Your task to perform on an android device: change the clock style Image 0: 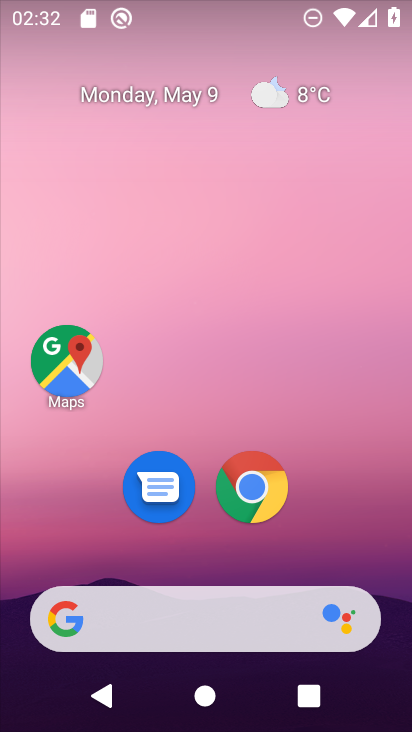
Step 0: drag from (374, 548) to (310, 2)
Your task to perform on an android device: change the clock style Image 1: 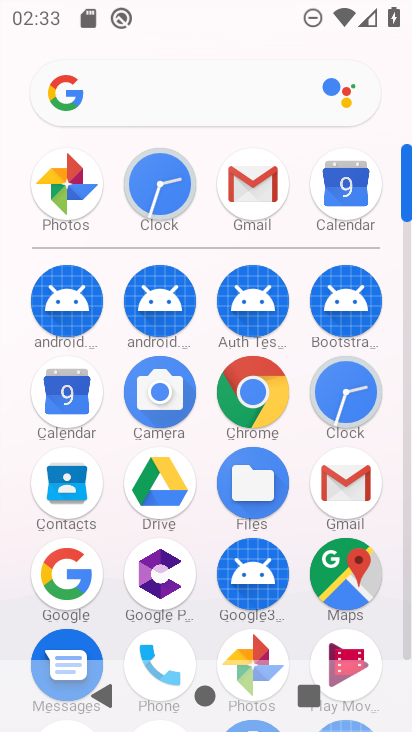
Step 1: click (345, 402)
Your task to perform on an android device: change the clock style Image 2: 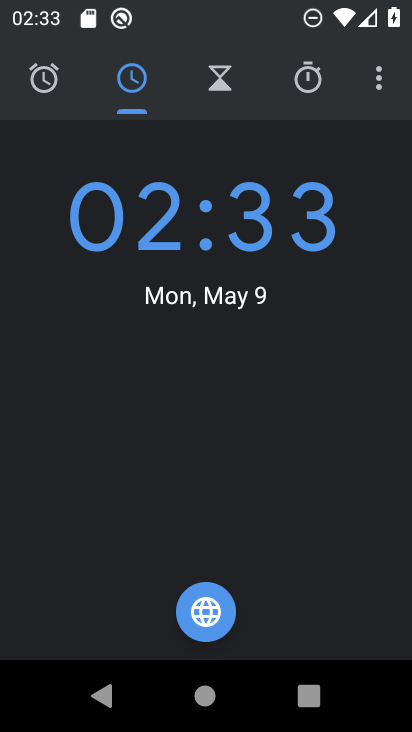
Step 2: click (371, 90)
Your task to perform on an android device: change the clock style Image 3: 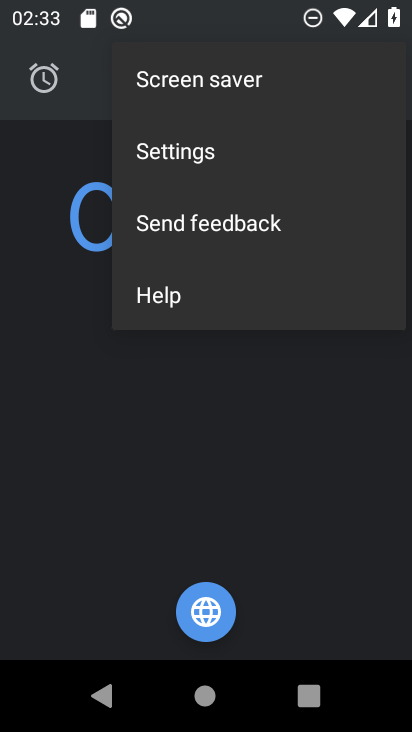
Step 3: click (184, 159)
Your task to perform on an android device: change the clock style Image 4: 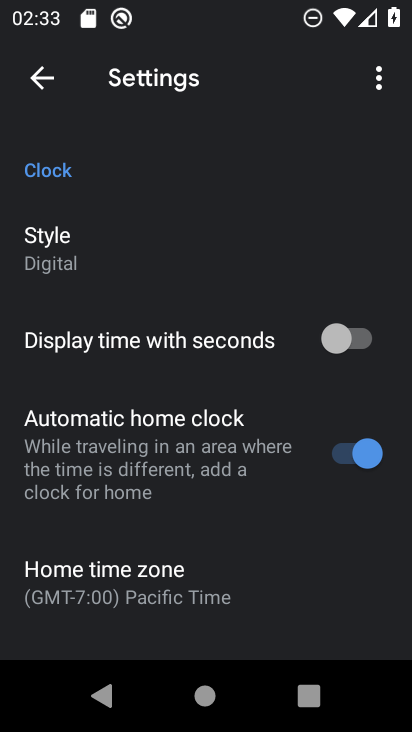
Step 4: click (115, 234)
Your task to perform on an android device: change the clock style Image 5: 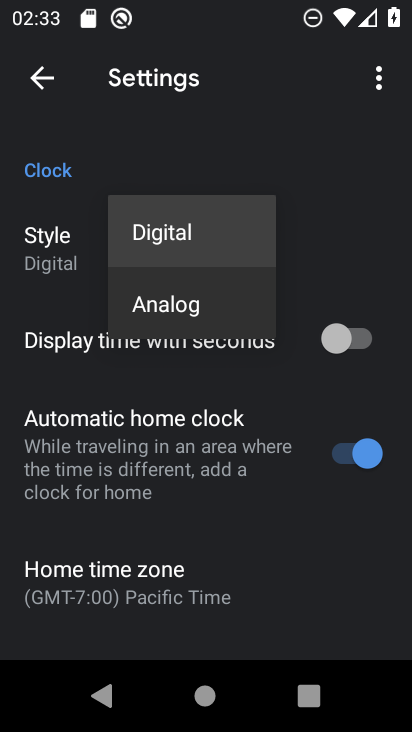
Step 5: click (152, 308)
Your task to perform on an android device: change the clock style Image 6: 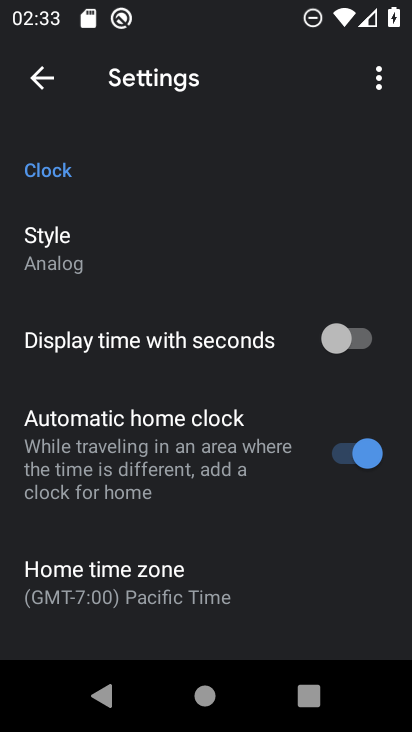
Step 6: task complete